Your task to perform on an android device: Go to Yahoo.com Image 0: 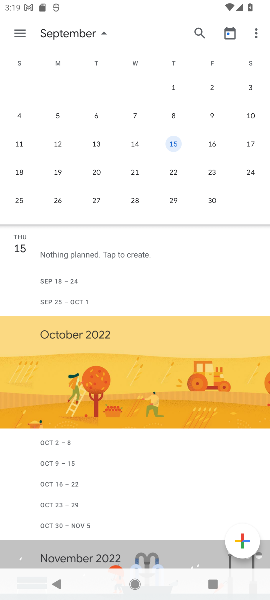
Step 0: press home button
Your task to perform on an android device: Go to Yahoo.com Image 1: 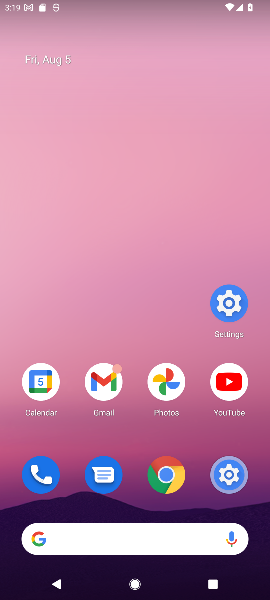
Step 1: click (166, 474)
Your task to perform on an android device: Go to Yahoo.com Image 2: 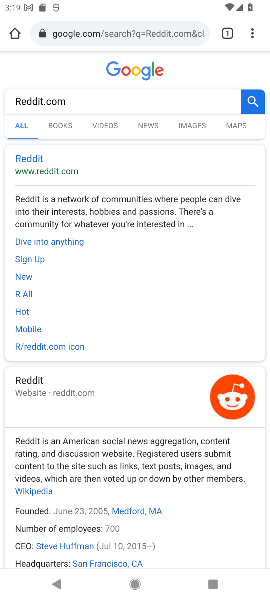
Step 2: click (156, 33)
Your task to perform on an android device: Go to Yahoo.com Image 3: 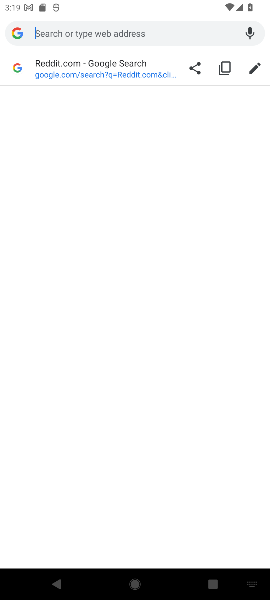
Step 3: type "Yahoo.com"
Your task to perform on an android device: Go to Yahoo.com Image 4: 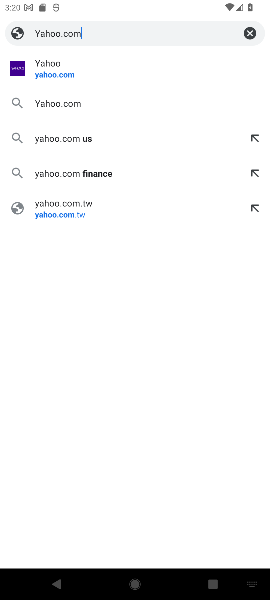
Step 4: click (56, 103)
Your task to perform on an android device: Go to Yahoo.com Image 5: 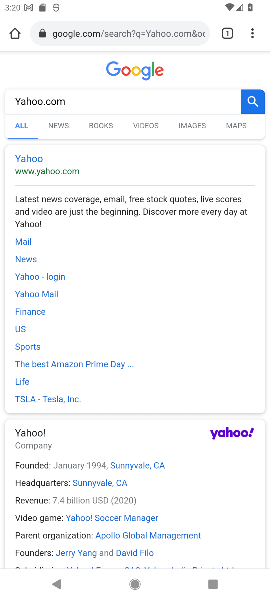
Step 5: task complete